Your task to perform on an android device: Open Google Chrome Image 0: 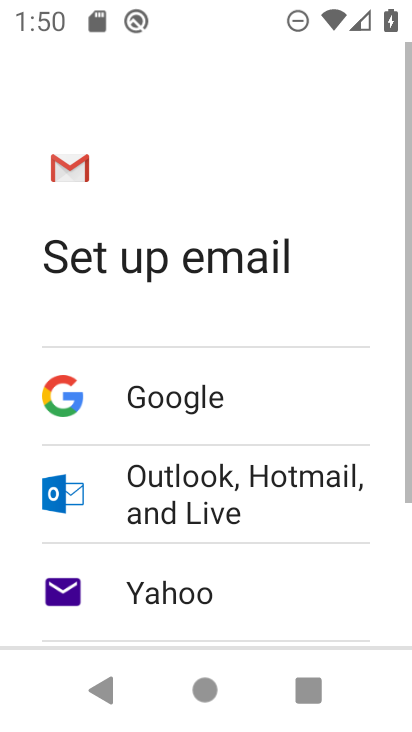
Step 0: press home button
Your task to perform on an android device: Open Google Chrome Image 1: 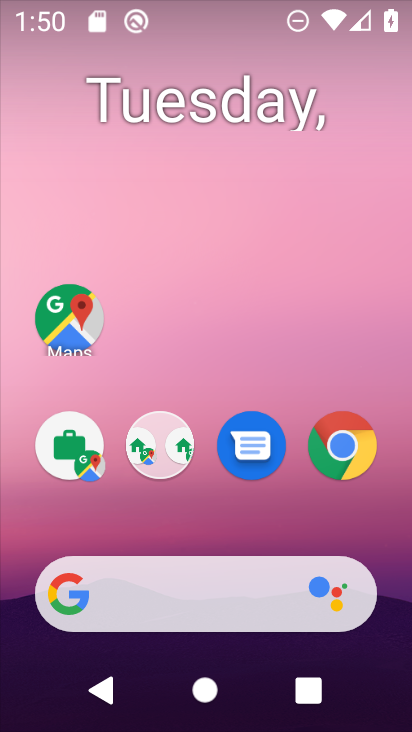
Step 1: click (348, 465)
Your task to perform on an android device: Open Google Chrome Image 2: 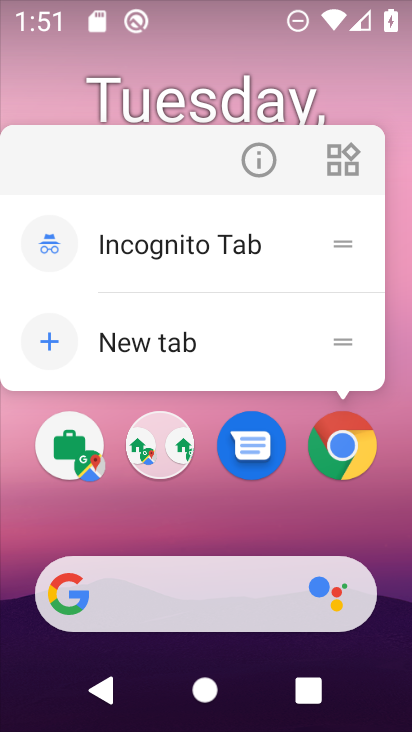
Step 2: click (334, 450)
Your task to perform on an android device: Open Google Chrome Image 3: 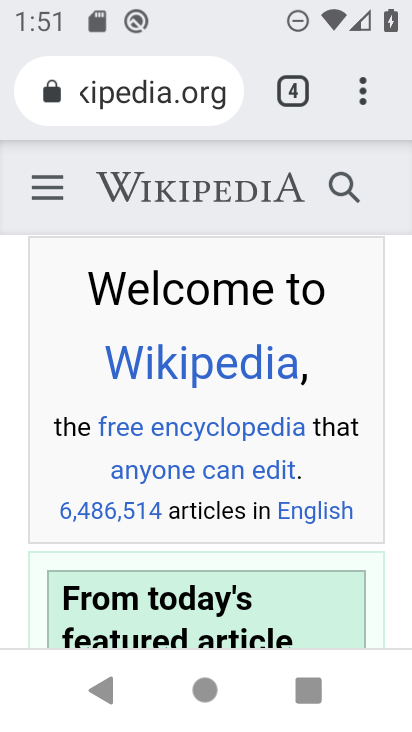
Step 3: task complete